Your task to perform on an android device: Open ESPN.com Image 0: 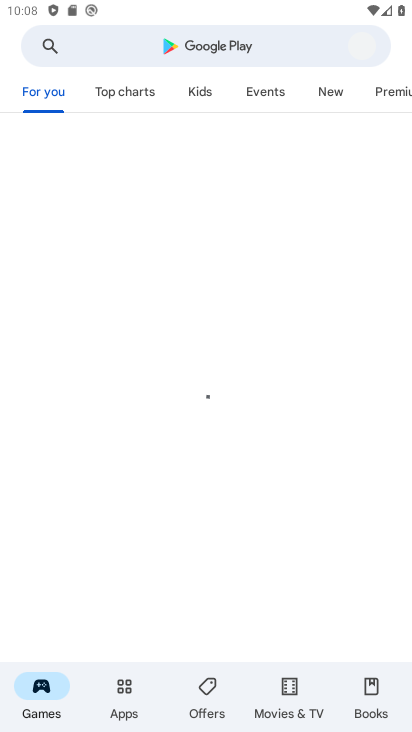
Step 0: press home button
Your task to perform on an android device: Open ESPN.com Image 1: 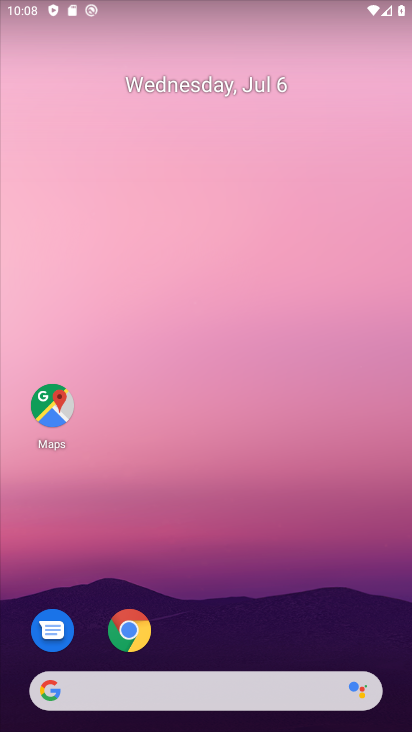
Step 1: drag from (145, 658) to (199, 150)
Your task to perform on an android device: Open ESPN.com Image 2: 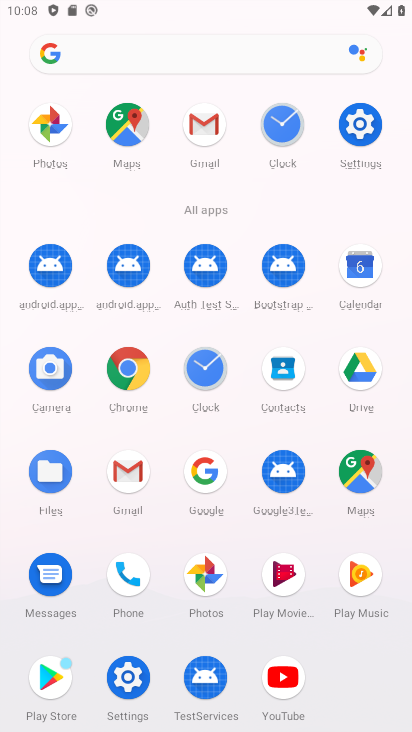
Step 2: click (118, 373)
Your task to perform on an android device: Open ESPN.com Image 3: 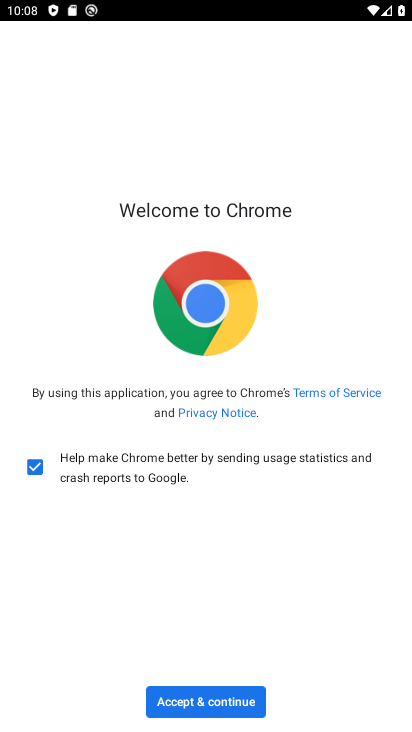
Step 3: click (225, 698)
Your task to perform on an android device: Open ESPN.com Image 4: 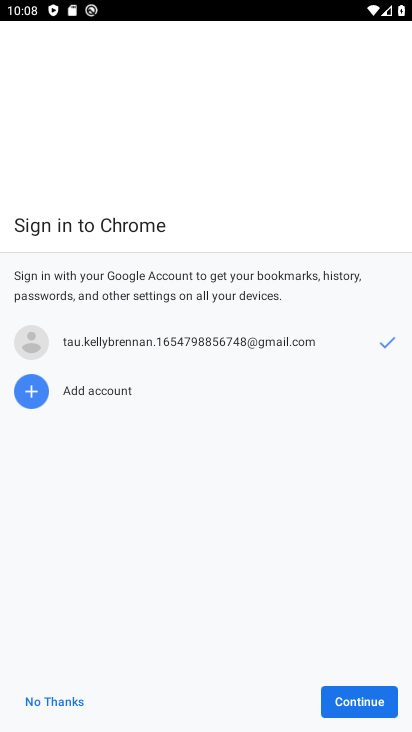
Step 4: click (351, 707)
Your task to perform on an android device: Open ESPN.com Image 5: 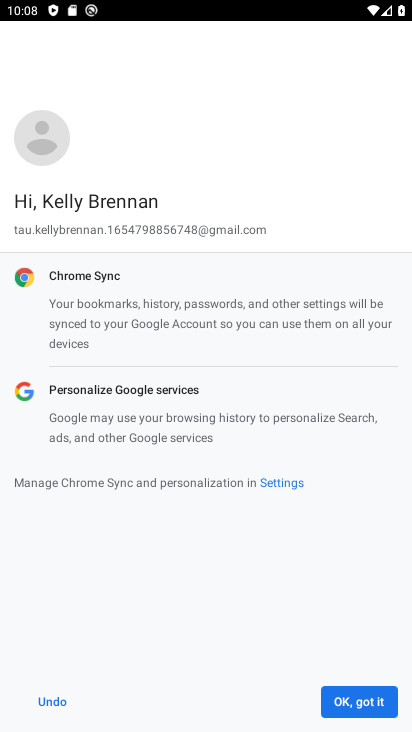
Step 5: click (368, 698)
Your task to perform on an android device: Open ESPN.com Image 6: 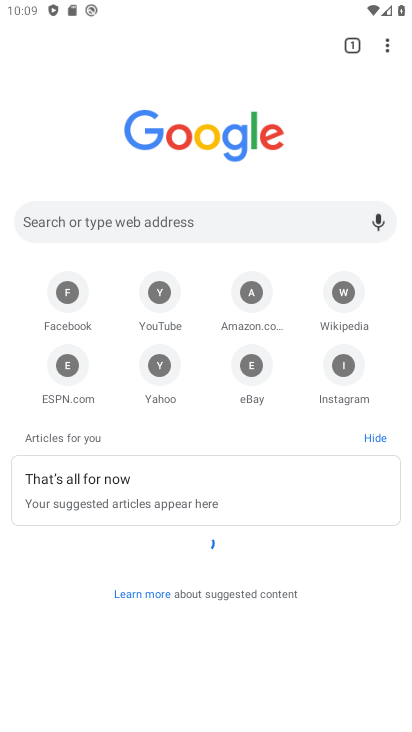
Step 6: click (146, 228)
Your task to perform on an android device: Open ESPN.com Image 7: 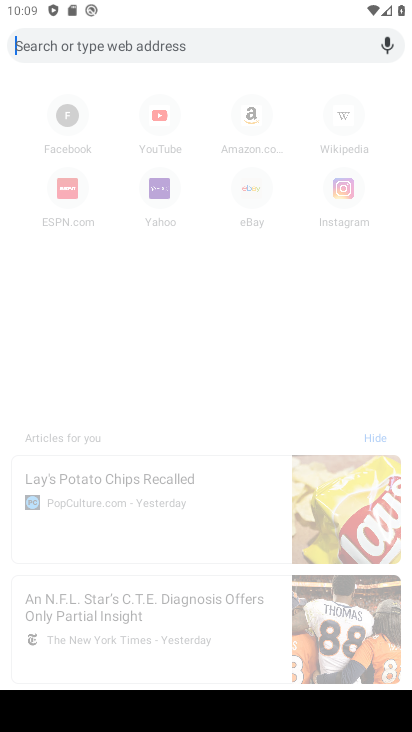
Step 7: type "ESPN.com"
Your task to perform on an android device: Open ESPN.com Image 8: 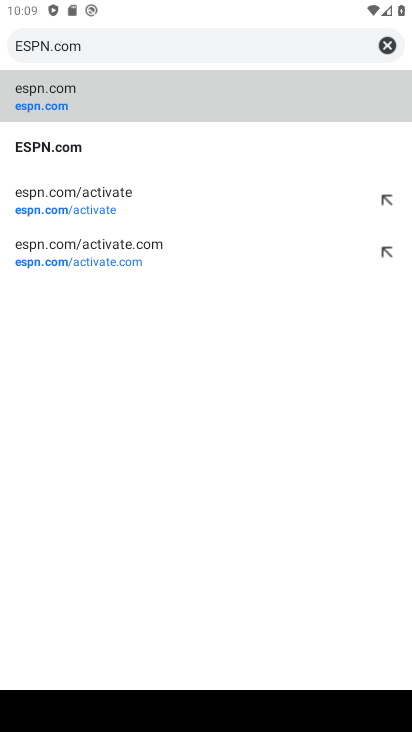
Step 8: click (143, 111)
Your task to perform on an android device: Open ESPN.com Image 9: 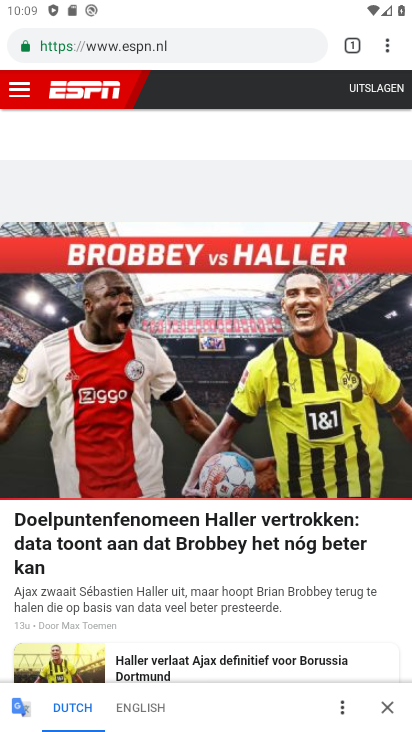
Step 9: task complete